Your task to perform on an android device: turn off wifi Image 0: 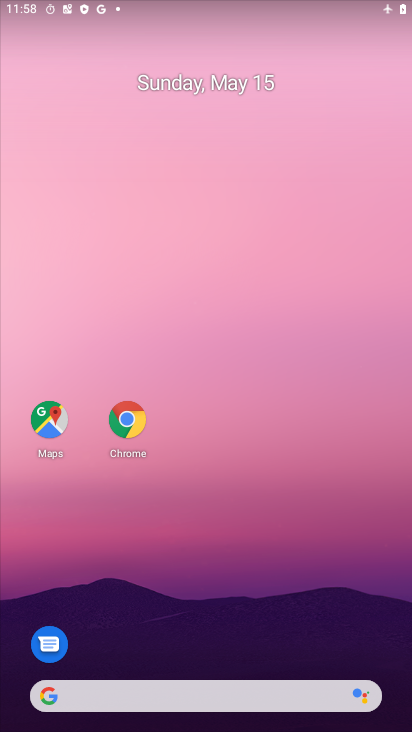
Step 0: drag from (149, 503) to (204, 297)
Your task to perform on an android device: turn off wifi Image 1: 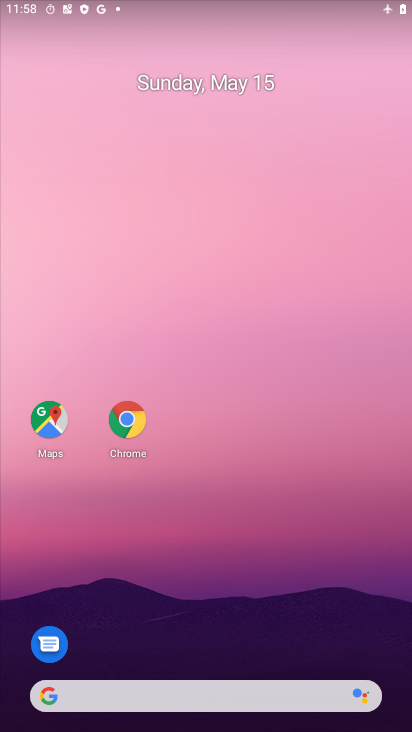
Step 1: drag from (211, 303) to (3, 266)
Your task to perform on an android device: turn off wifi Image 2: 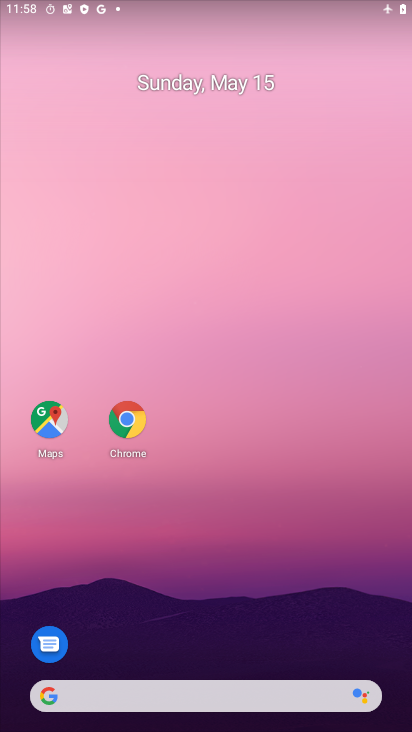
Step 2: drag from (200, 646) to (194, 58)
Your task to perform on an android device: turn off wifi Image 3: 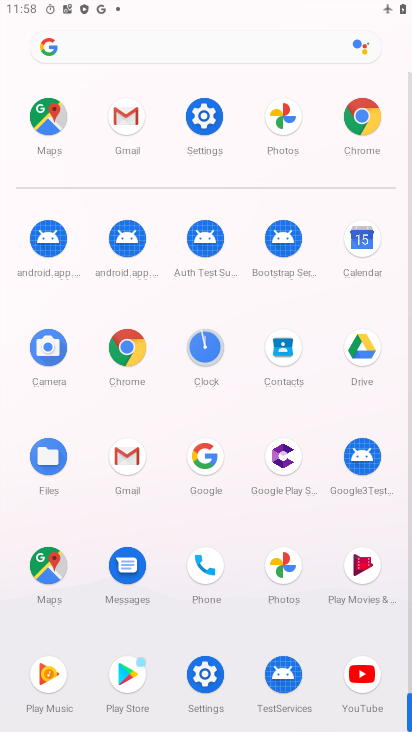
Step 3: click (194, 124)
Your task to perform on an android device: turn off wifi Image 4: 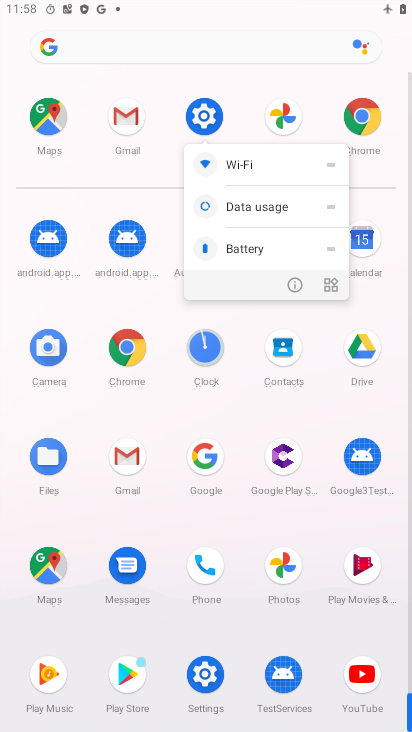
Step 4: click (293, 290)
Your task to perform on an android device: turn off wifi Image 5: 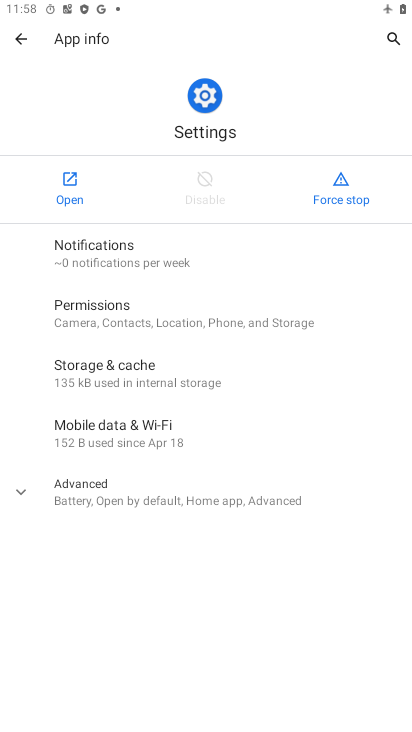
Step 5: click (52, 173)
Your task to perform on an android device: turn off wifi Image 6: 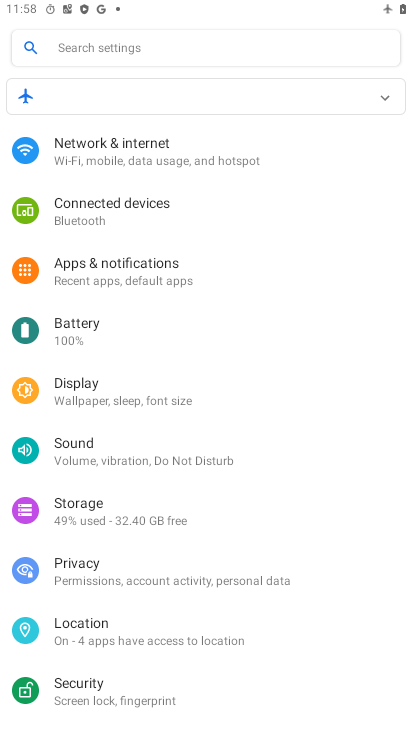
Step 6: click (159, 156)
Your task to perform on an android device: turn off wifi Image 7: 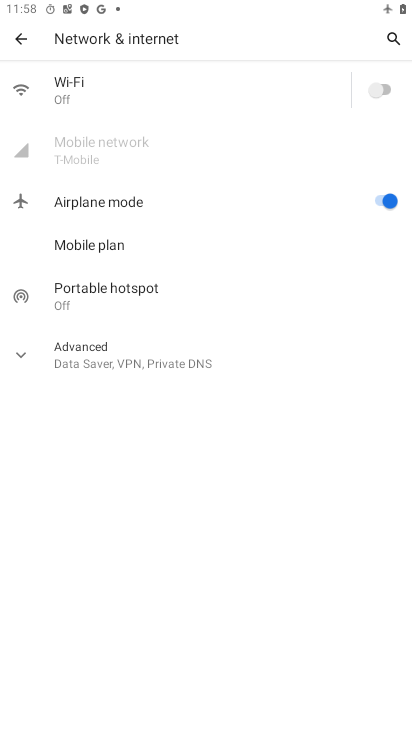
Step 7: click (189, 77)
Your task to perform on an android device: turn off wifi Image 8: 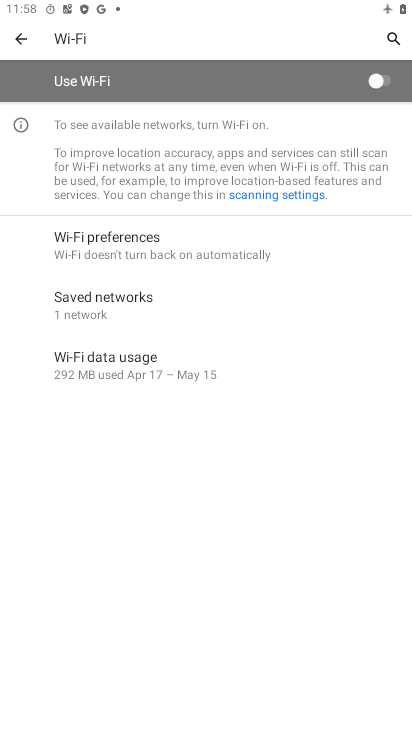
Step 8: task complete